Your task to perform on an android device: turn on data saver in the chrome app Image 0: 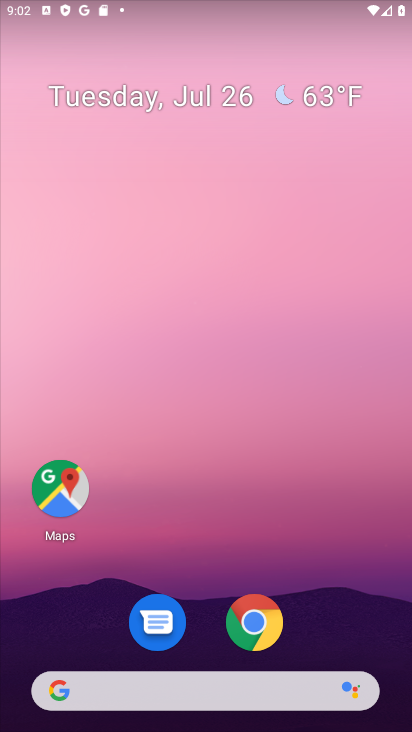
Step 0: drag from (358, 420) to (18, 62)
Your task to perform on an android device: turn on data saver in the chrome app Image 1: 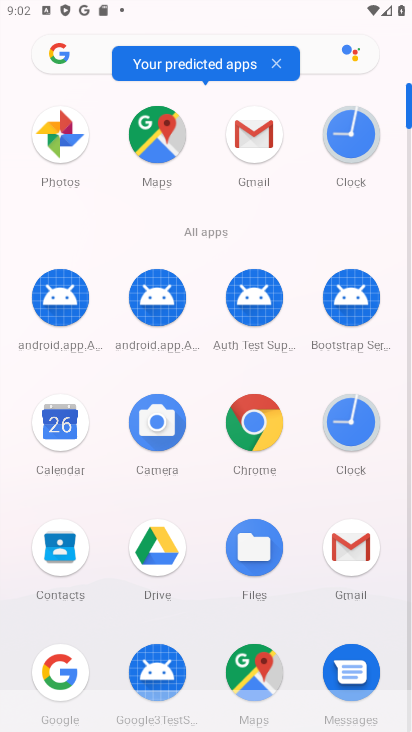
Step 1: click (243, 420)
Your task to perform on an android device: turn on data saver in the chrome app Image 2: 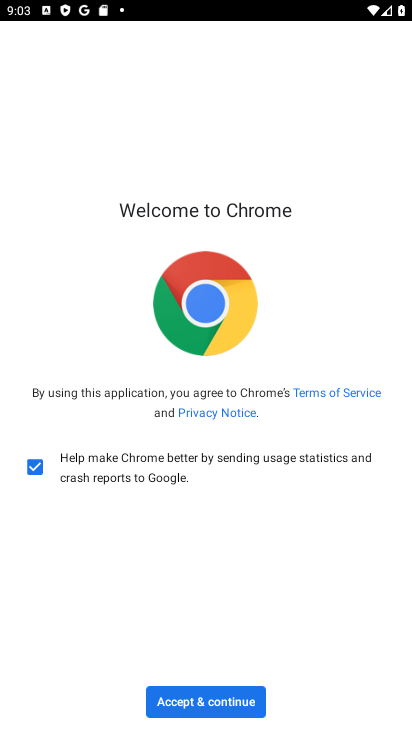
Step 2: click (198, 693)
Your task to perform on an android device: turn on data saver in the chrome app Image 3: 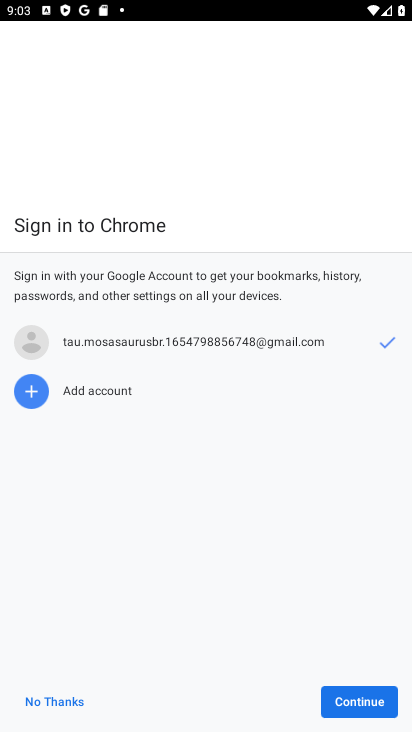
Step 3: click (77, 708)
Your task to perform on an android device: turn on data saver in the chrome app Image 4: 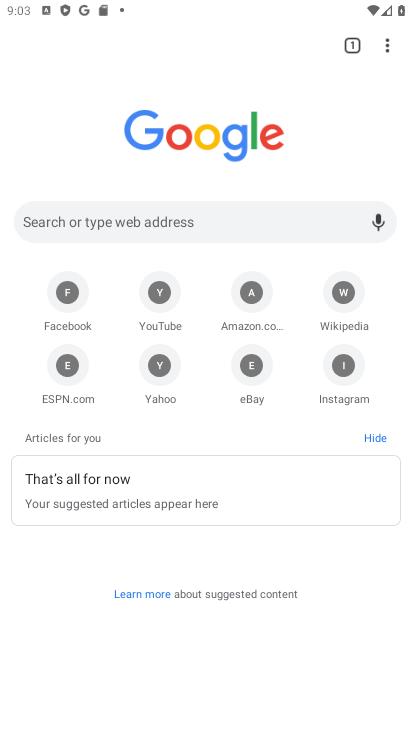
Step 4: drag from (386, 47) to (232, 381)
Your task to perform on an android device: turn on data saver in the chrome app Image 5: 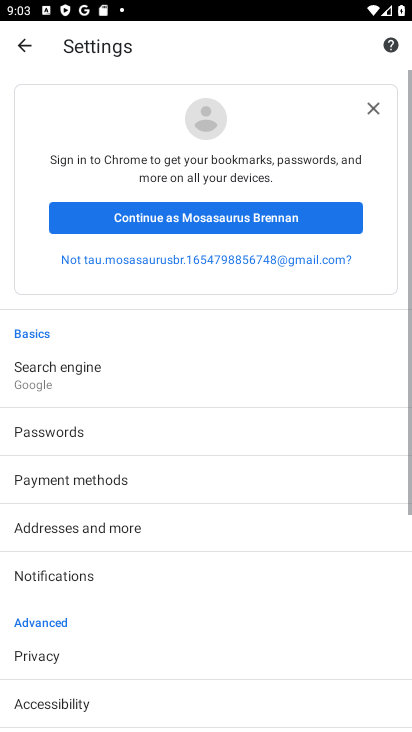
Step 5: drag from (165, 634) to (276, 115)
Your task to perform on an android device: turn on data saver in the chrome app Image 6: 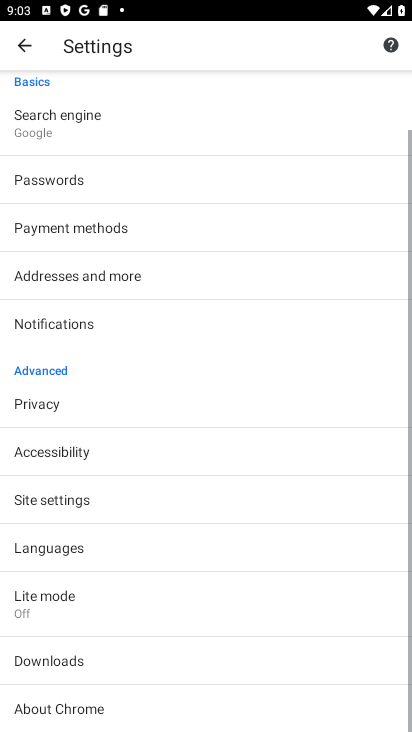
Step 6: click (76, 610)
Your task to perform on an android device: turn on data saver in the chrome app Image 7: 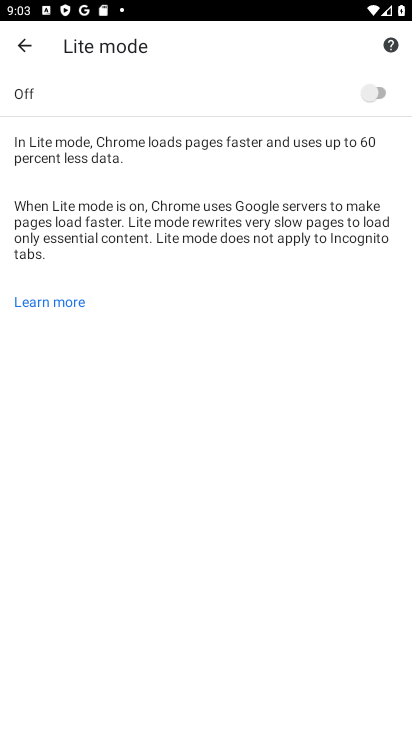
Step 7: click (374, 100)
Your task to perform on an android device: turn on data saver in the chrome app Image 8: 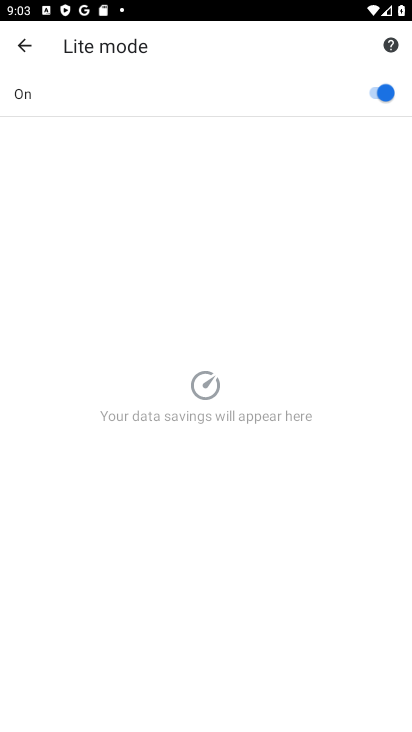
Step 8: task complete